Your task to perform on an android device: toggle notification dots Image 0: 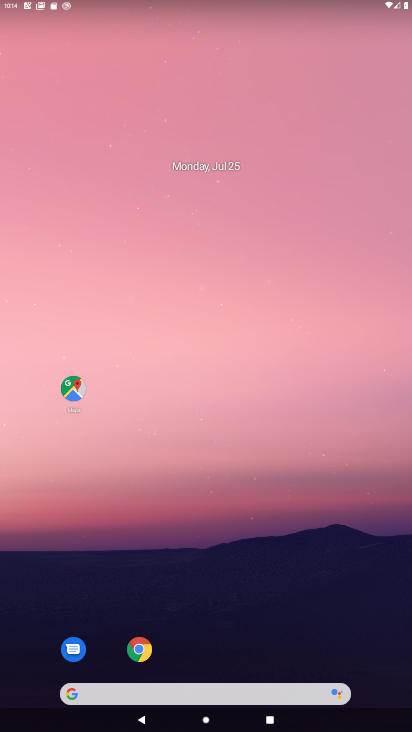
Step 0: drag from (382, 668) to (337, 200)
Your task to perform on an android device: toggle notification dots Image 1: 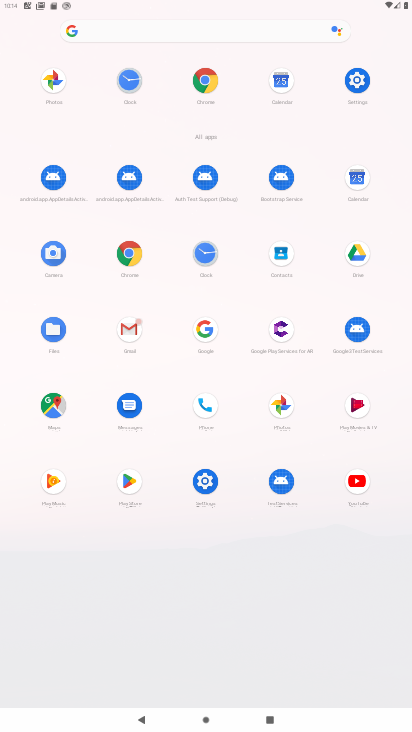
Step 1: click (205, 483)
Your task to perform on an android device: toggle notification dots Image 2: 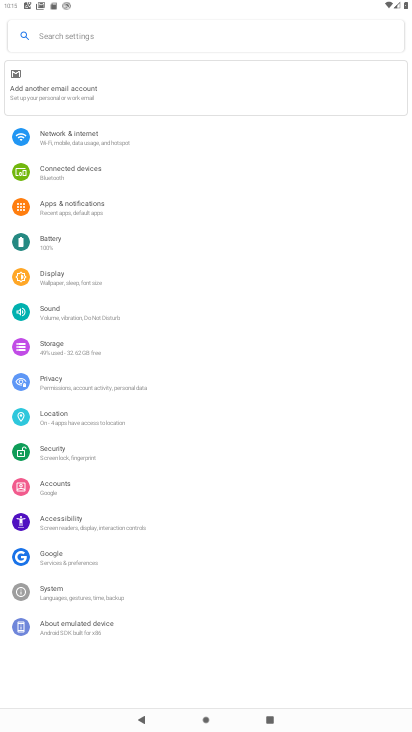
Step 2: click (55, 202)
Your task to perform on an android device: toggle notification dots Image 3: 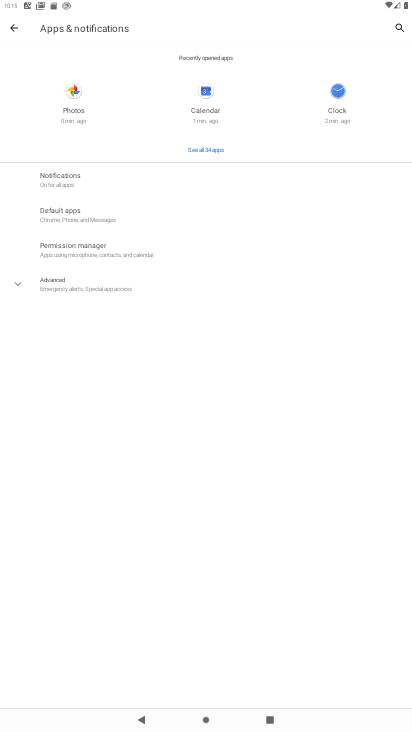
Step 3: click (55, 177)
Your task to perform on an android device: toggle notification dots Image 4: 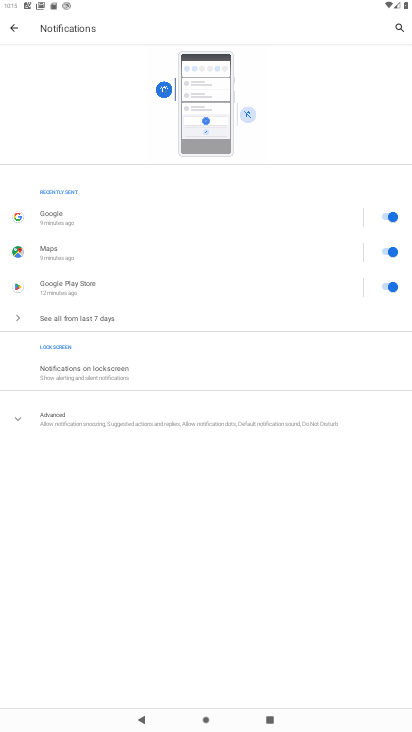
Step 4: click (18, 416)
Your task to perform on an android device: toggle notification dots Image 5: 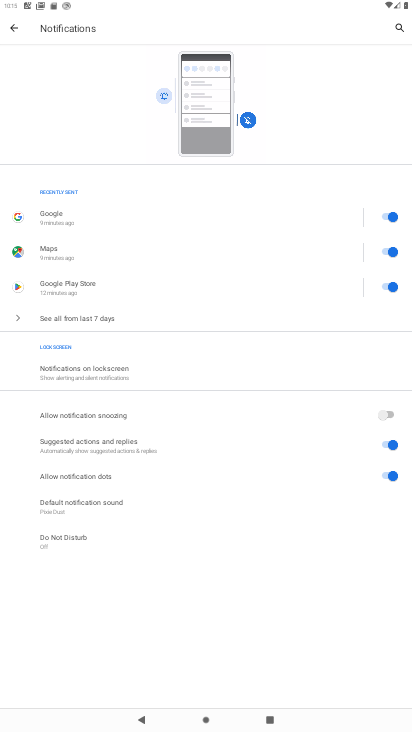
Step 5: click (384, 474)
Your task to perform on an android device: toggle notification dots Image 6: 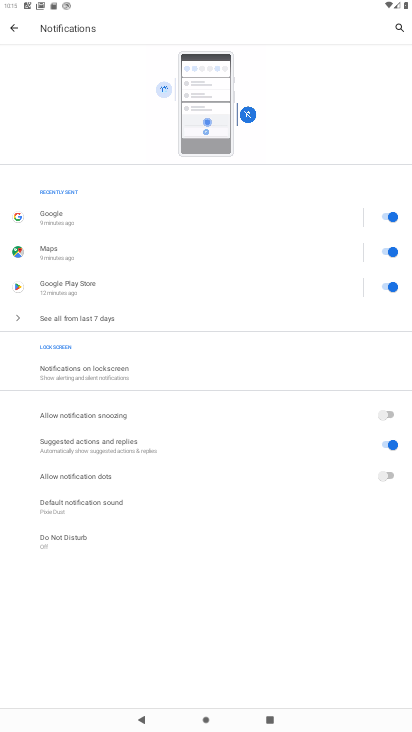
Step 6: task complete